Your task to perform on an android device: uninstall "Pandora - Music & Podcasts" Image 0: 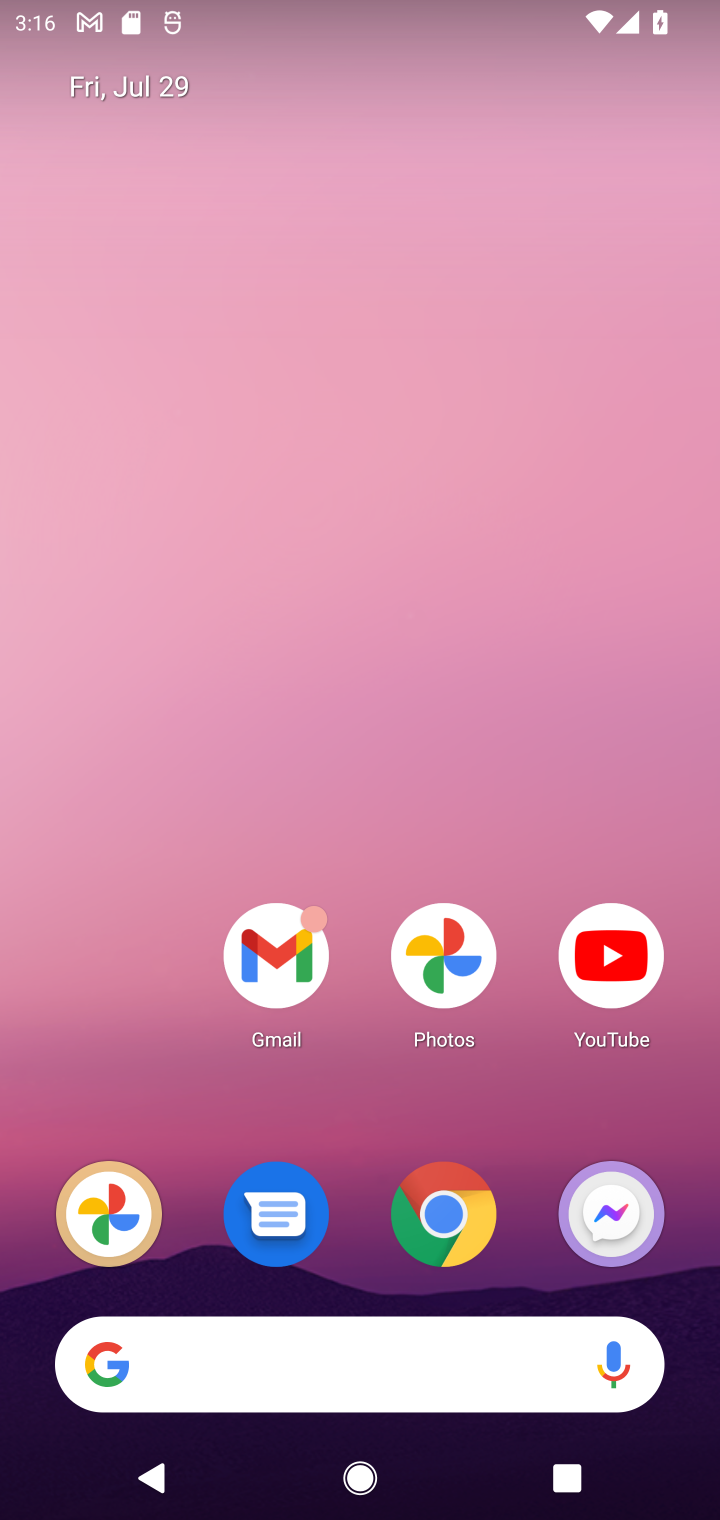
Step 0: drag from (603, 844) to (312, 14)
Your task to perform on an android device: uninstall "Pandora - Music & Podcasts" Image 1: 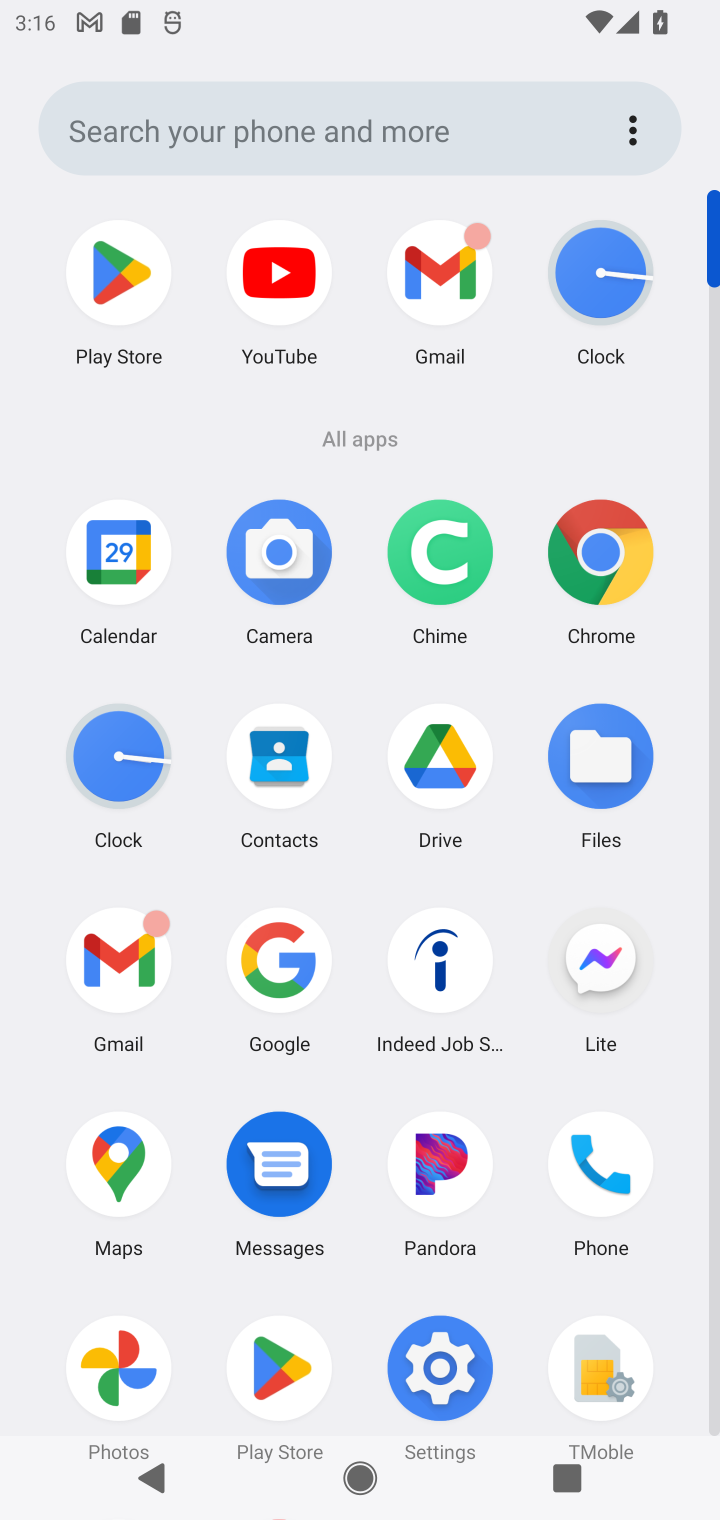
Step 1: click (111, 281)
Your task to perform on an android device: uninstall "Pandora - Music & Podcasts" Image 2: 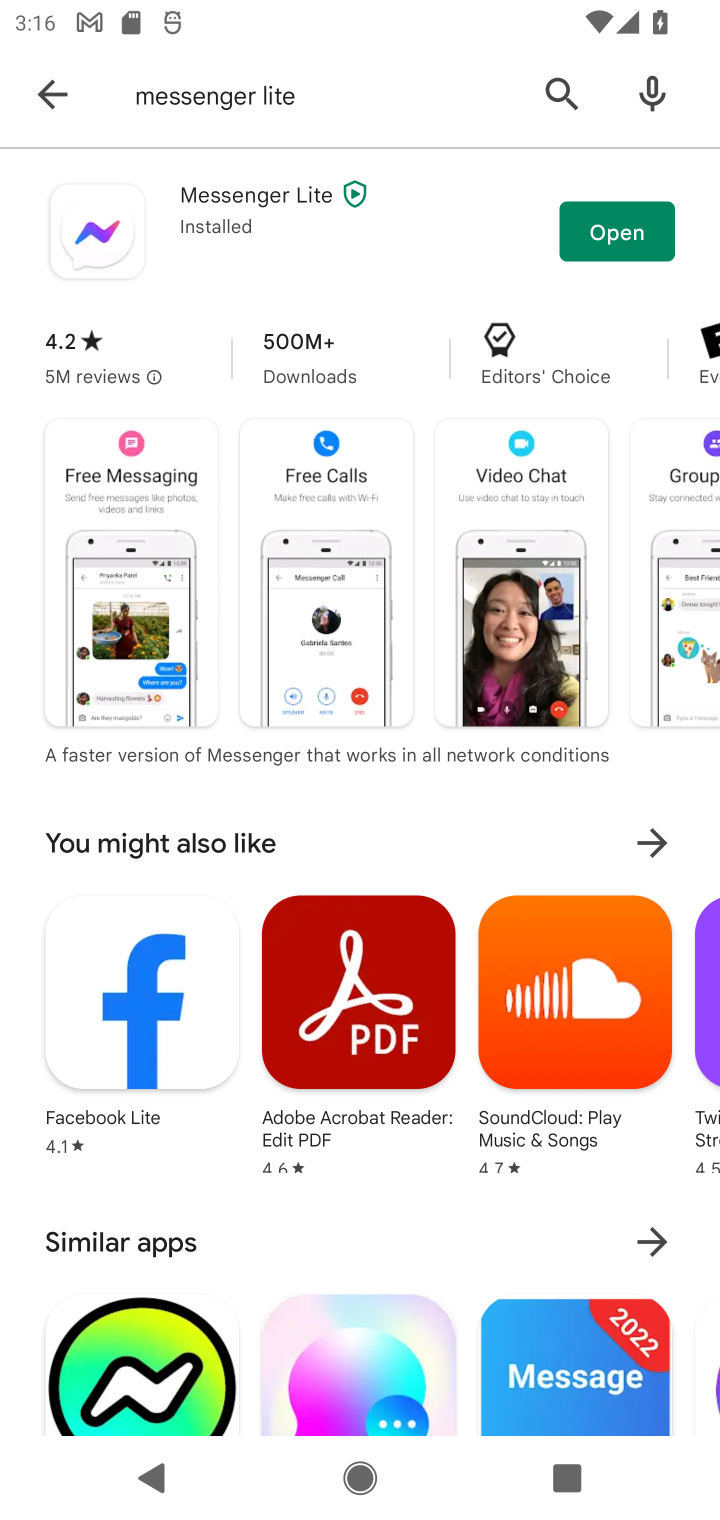
Step 2: click (555, 89)
Your task to perform on an android device: uninstall "Pandora - Music & Podcasts" Image 3: 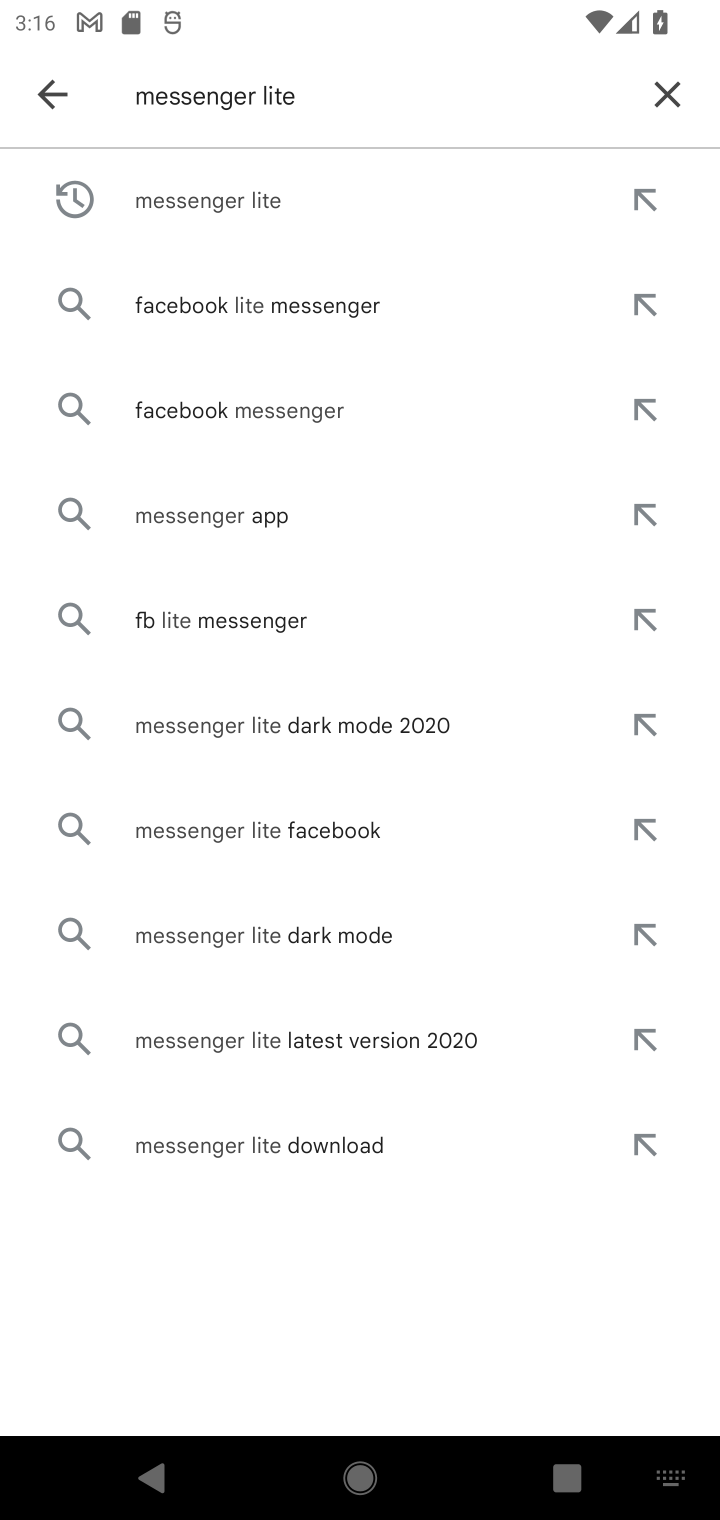
Step 3: click (666, 99)
Your task to perform on an android device: uninstall "Pandora - Music & Podcasts" Image 4: 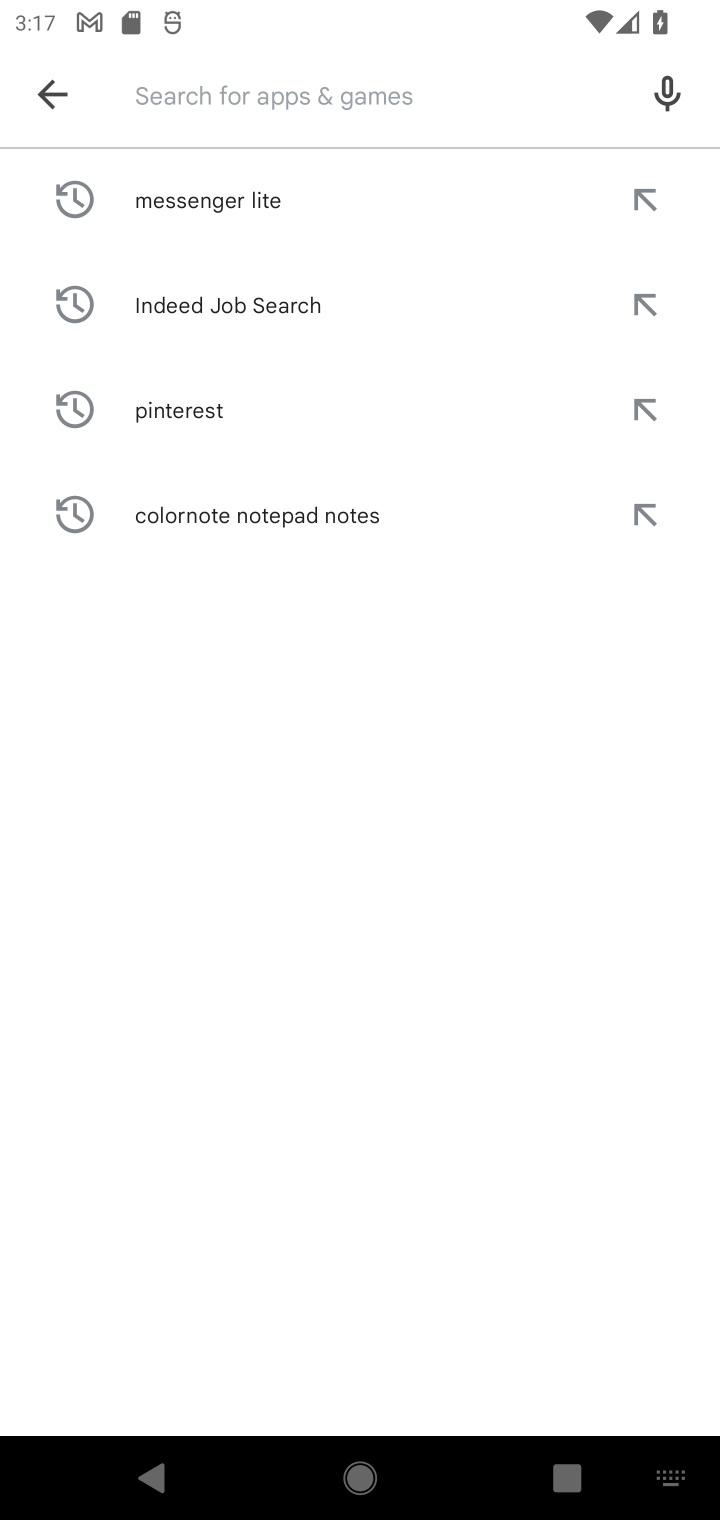
Step 4: type "Pandora - Music & Podcasts"
Your task to perform on an android device: uninstall "Pandora - Music & Podcasts" Image 5: 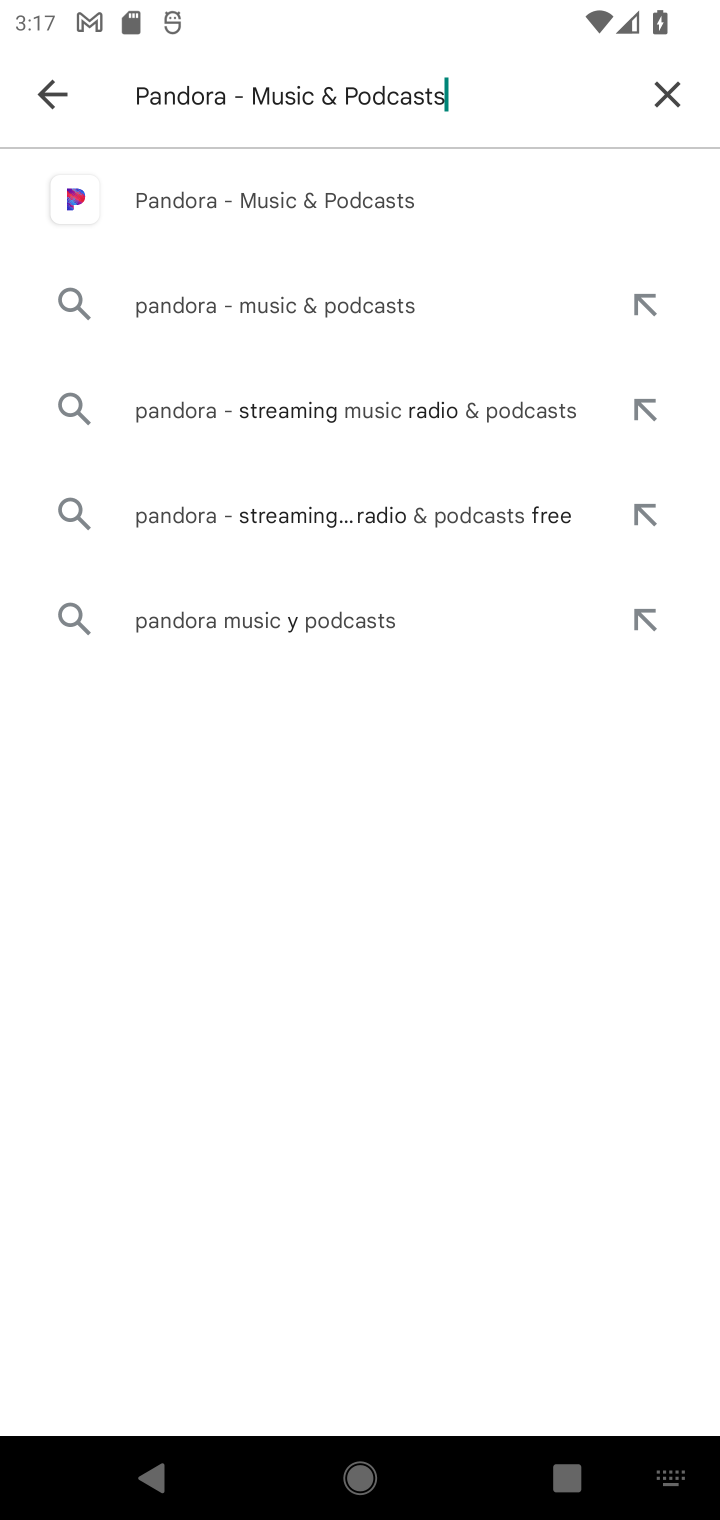
Step 5: click (418, 207)
Your task to perform on an android device: uninstall "Pandora - Music & Podcasts" Image 6: 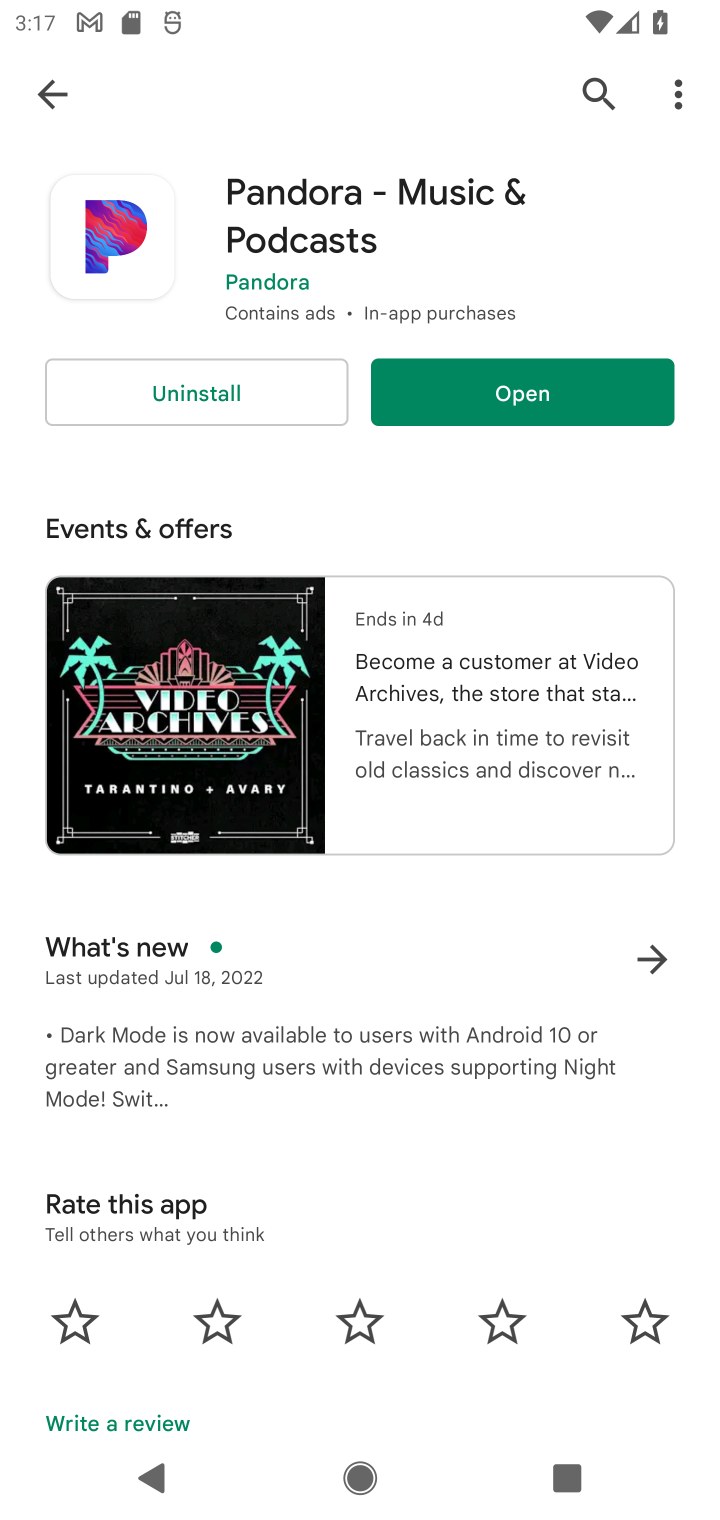
Step 6: click (204, 389)
Your task to perform on an android device: uninstall "Pandora - Music & Podcasts" Image 7: 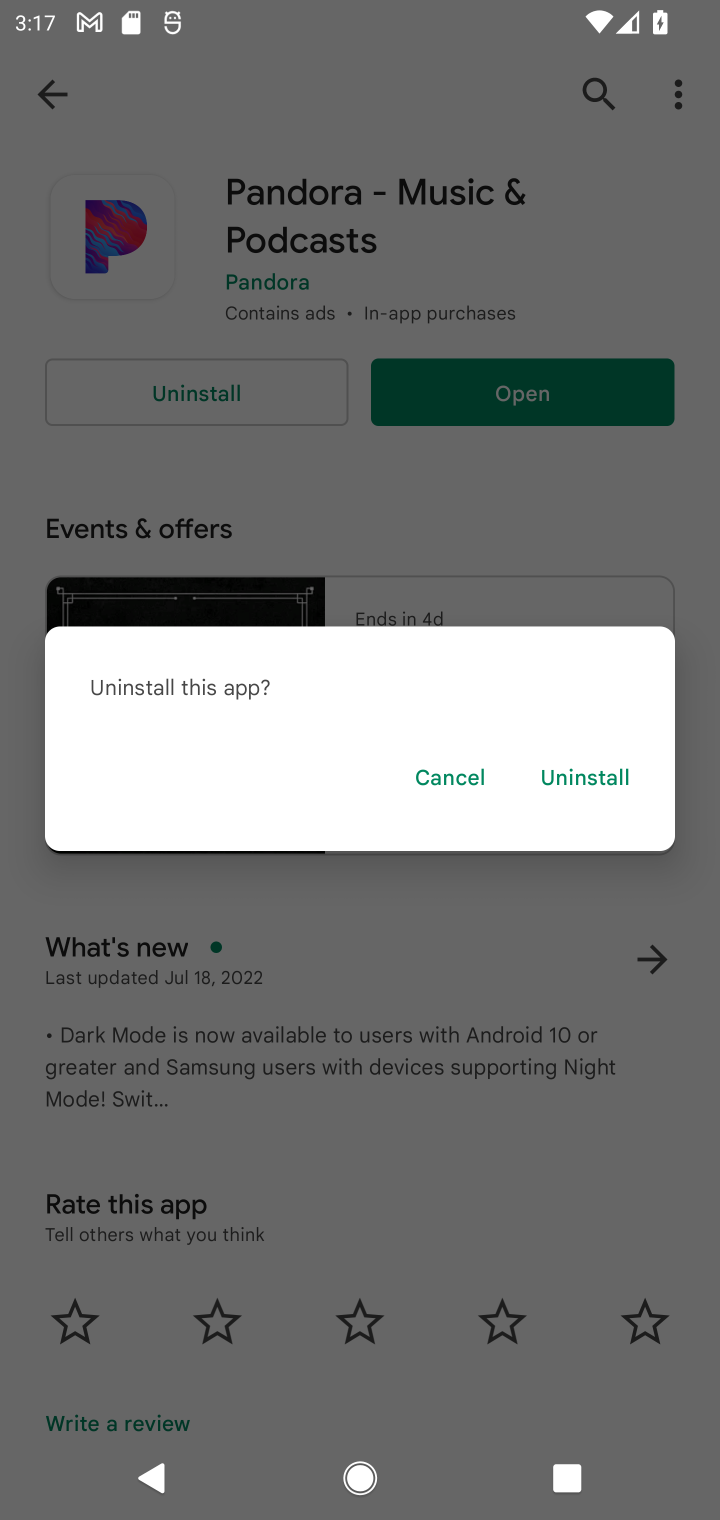
Step 7: click (600, 774)
Your task to perform on an android device: uninstall "Pandora - Music & Podcasts" Image 8: 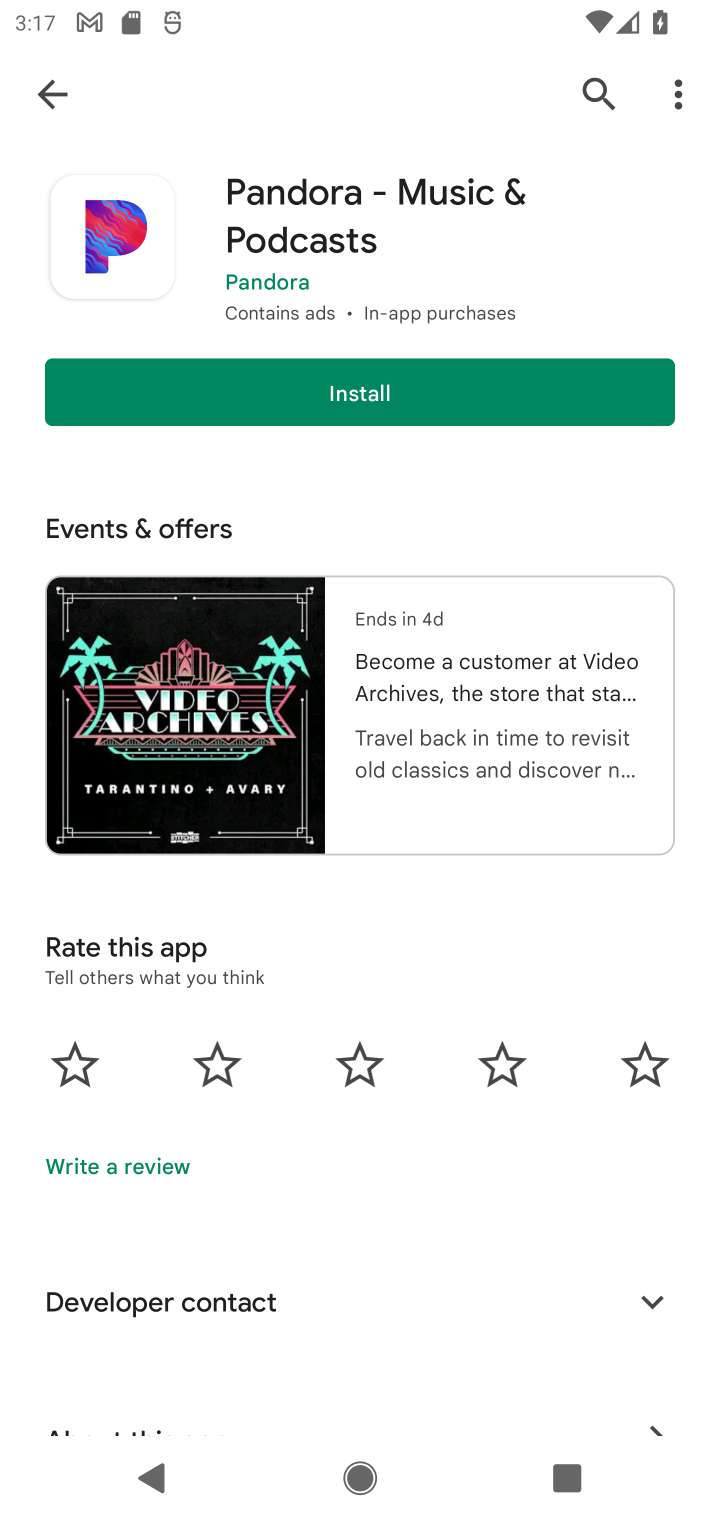
Step 8: task complete